Your task to perform on an android device: Open the stopwatch Image 0: 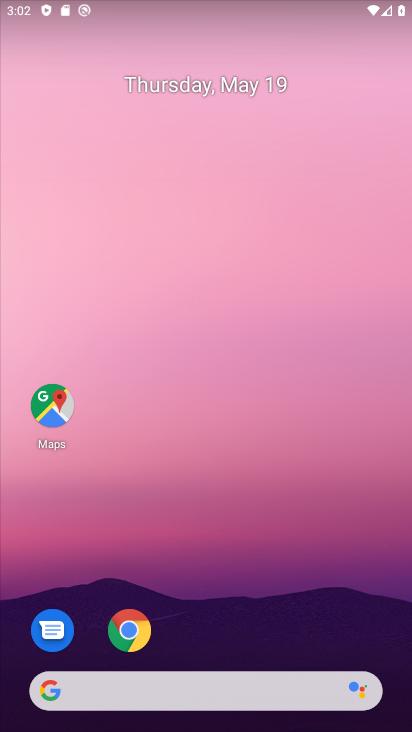
Step 0: drag from (244, 615) to (252, 57)
Your task to perform on an android device: Open the stopwatch Image 1: 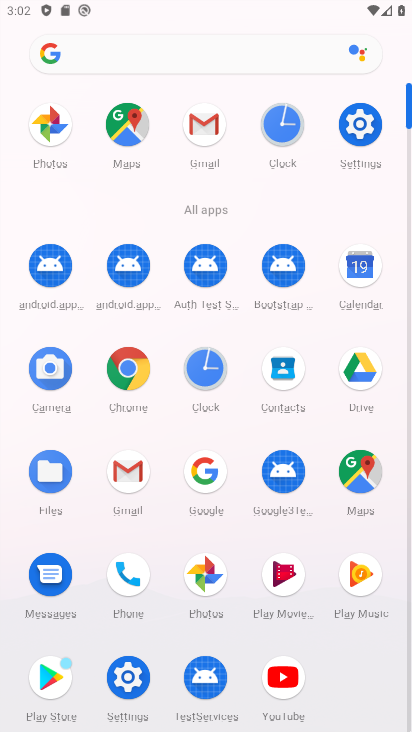
Step 1: click (198, 372)
Your task to perform on an android device: Open the stopwatch Image 2: 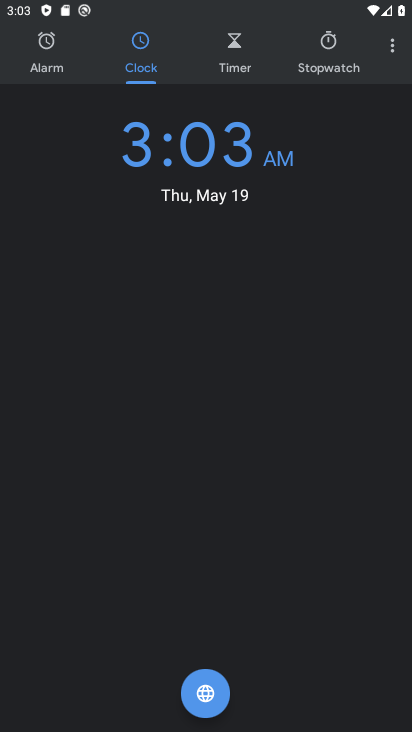
Step 2: click (344, 57)
Your task to perform on an android device: Open the stopwatch Image 3: 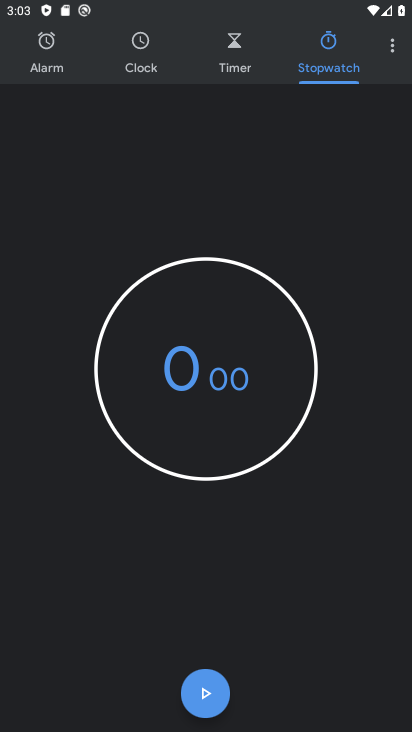
Step 3: task complete